Your task to perform on an android device: What's the weather? Image 0: 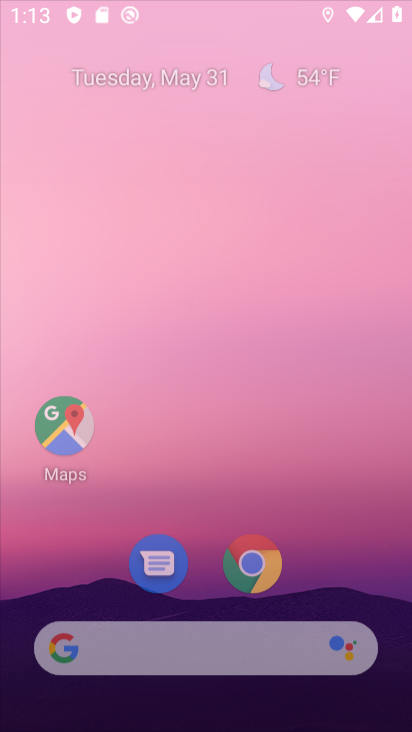
Step 0: click (239, 198)
Your task to perform on an android device: What's the weather? Image 1: 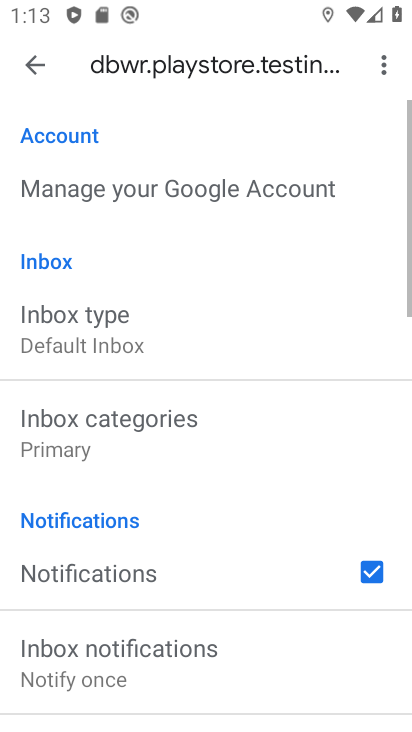
Step 1: drag from (241, 489) to (278, 204)
Your task to perform on an android device: What's the weather? Image 2: 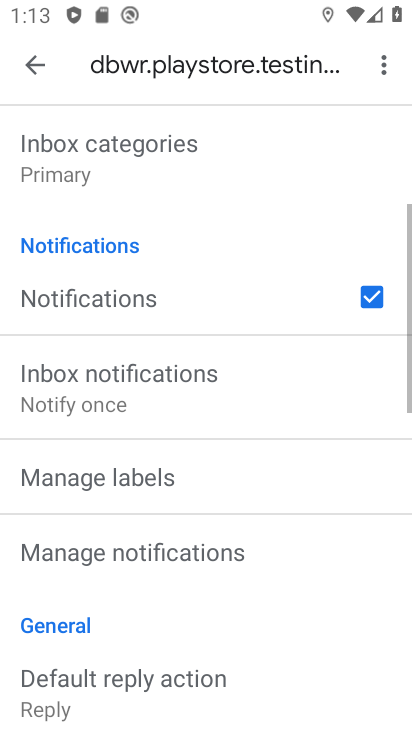
Step 2: drag from (163, 579) to (210, 213)
Your task to perform on an android device: What's the weather? Image 3: 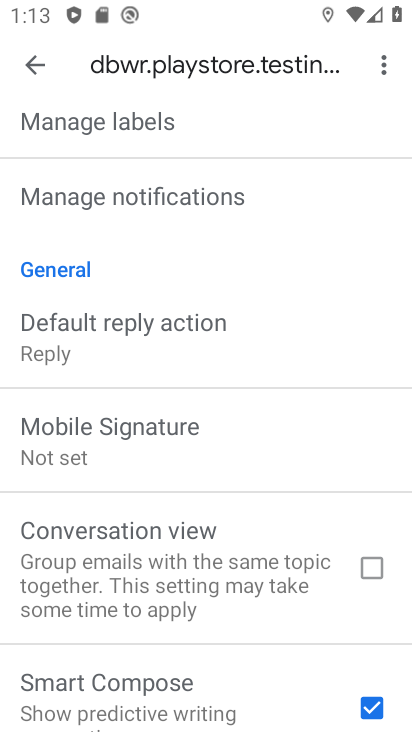
Step 3: press home button
Your task to perform on an android device: What's the weather? Image 4: 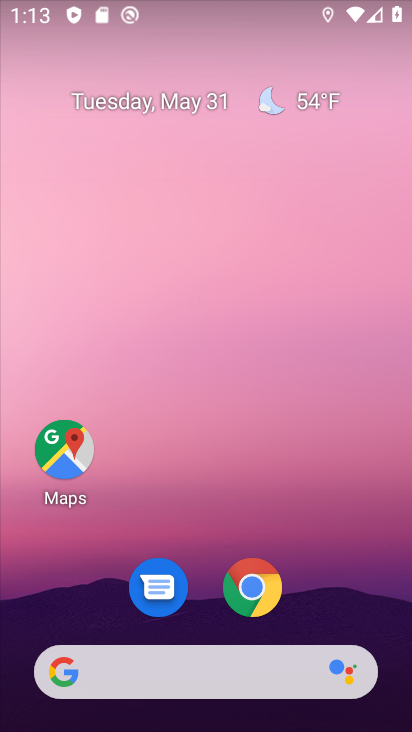
Step 4: drag from (196, 611) to (256, 59)
Your task to perform on an android device: What's the weather? Image 5: 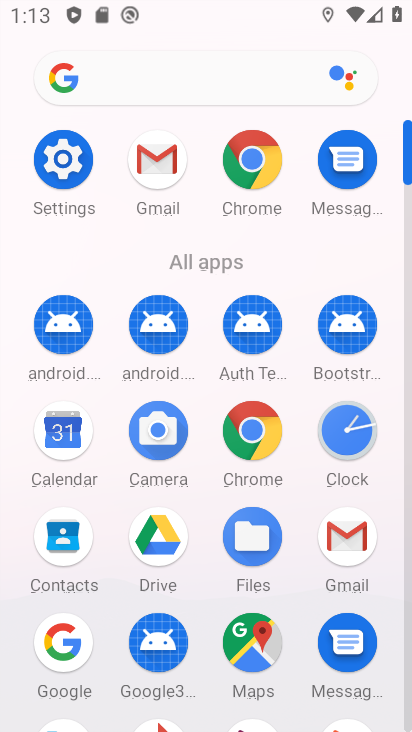
Step 5: click (127, 77)
Your task to perform on an android device: What's the weather? Image 6: 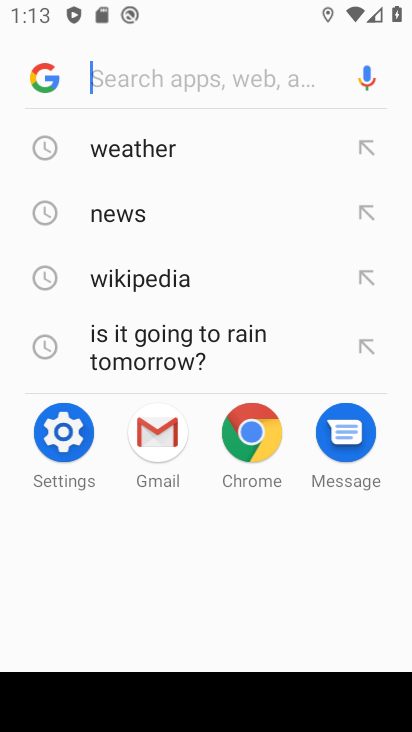
Step 6: click (164, 149)
Your task to perform on an android device: What's the weather? Image 7: 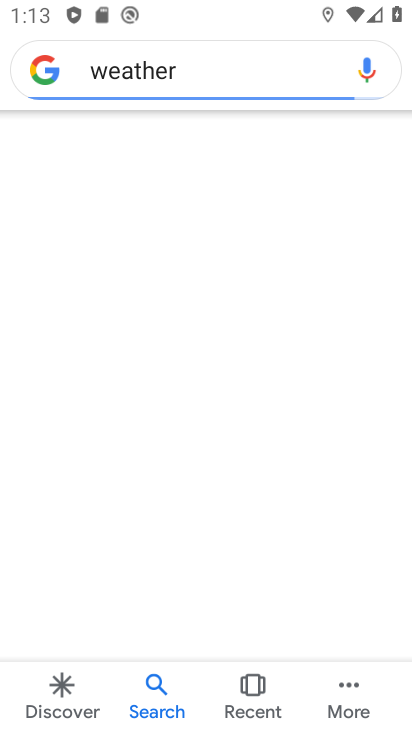
Step 7: task complete